Your task to perform on an android device: turn off airplane mode Image 0: 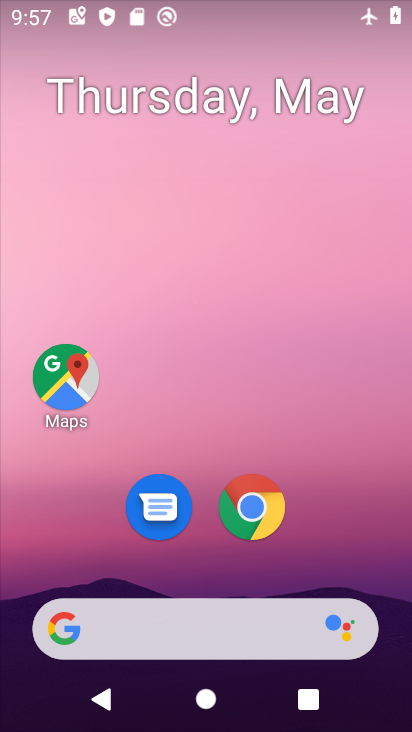
Step 0: drag from (229, 625) to (221, 188)
Your task to perform on an android device: turn off airplane mode Image 1: 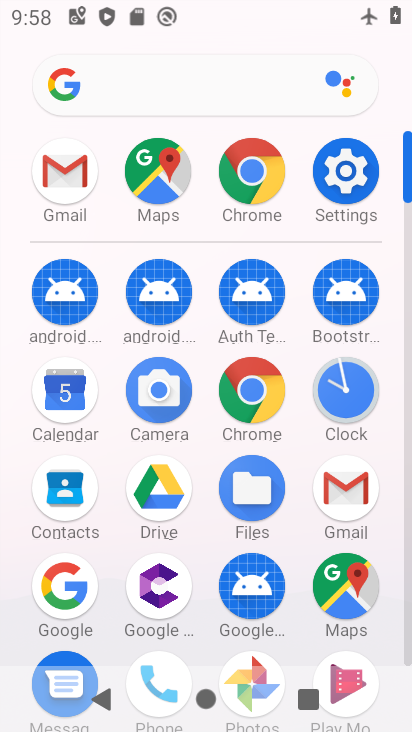
Step 1: click (347, 198)
Your task to perform on an android device: turn off airplane mode Image 2: 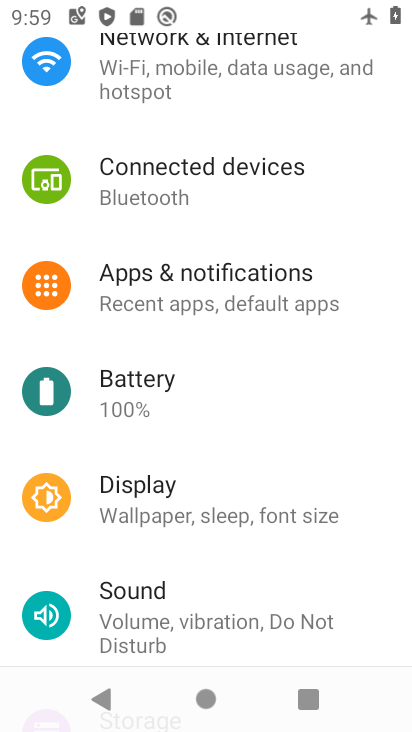
Step 2: drag from (234, 319) to (163, 630)
Your task to perform on an android device: turn off airplane mode Image 3: 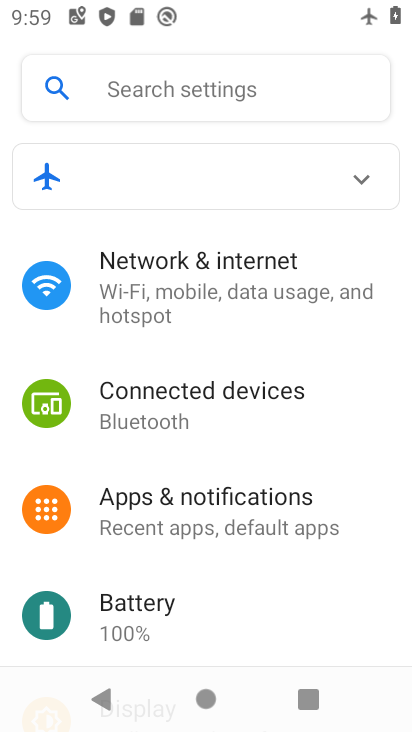
Step 3: click (205, 302)
Your task to perform on an android device: turn off airplane mode Image 4: 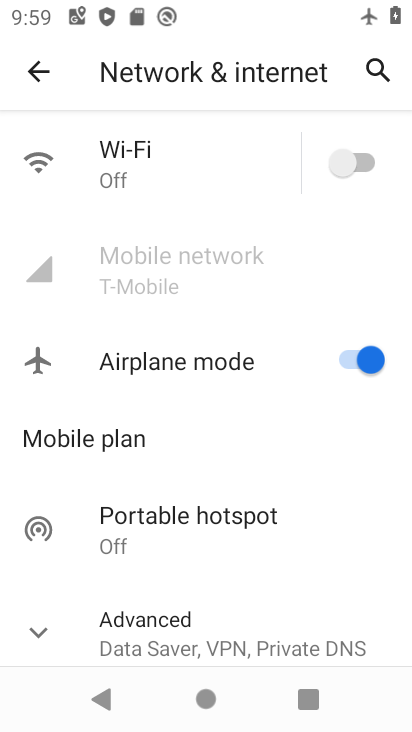
Step 4: click (342, 364)
Your task to perform on an android device: turn off airplane mode Image 5: 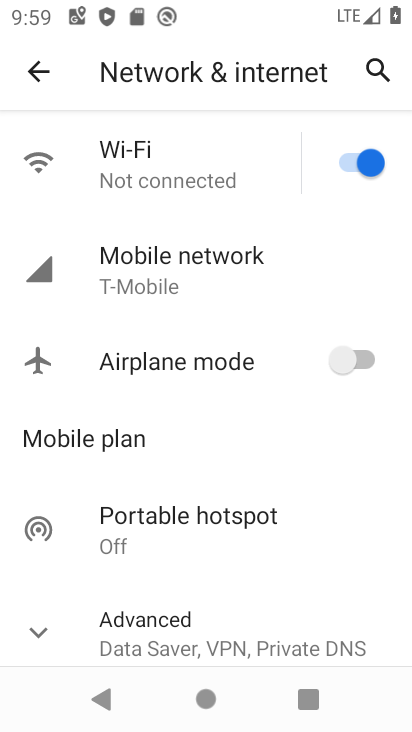
Step 5: task complete